Your task to perform on an android device: Go to Android settings Image 0: 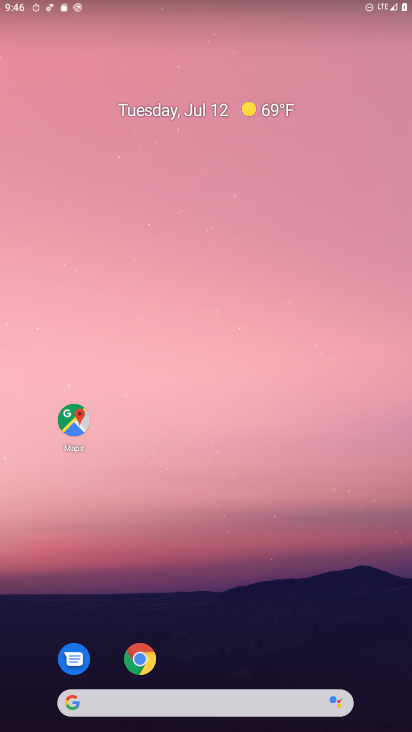
Step 0: drag from (209, 705) to (209, 130)
Your task to perform on an android device: Go to Android settings Image 1: 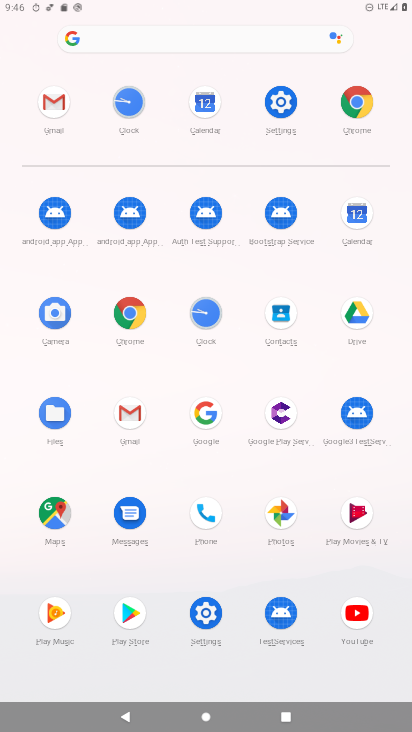
Step 1: click (279, 108)
Your task to perform on an android device: Go to Android settings Image 2: 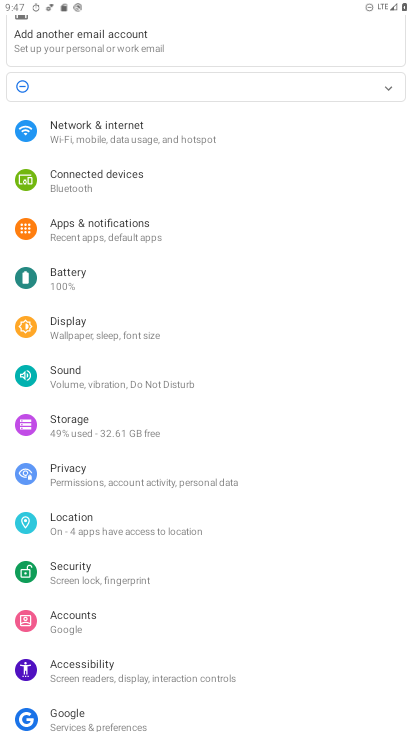
Step 2: task complete